Your task to perform on an android device: move an email to a new category in the gmail app Image 0: 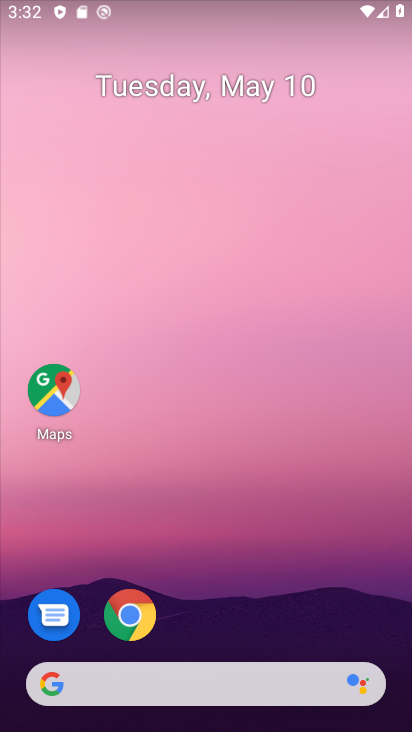
Step 0: drag from (291, 598) to (270, 120)
Your task to perform on an android device: move an email to a new category in the gmail app Image 1: 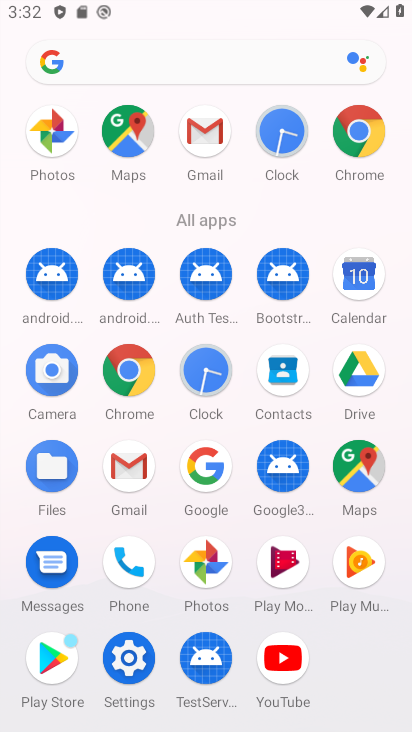
Step 1: click (208, 136)
Your task to perform on an android device: move an email to a new category in the gmail app Image 2: 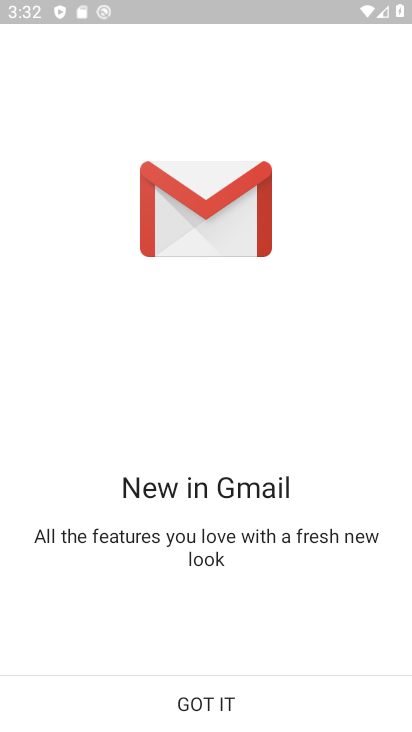
Step 2: click (231, 707)
Your task to perform on an android device: move an email to a new category in the gmail app Image 3: 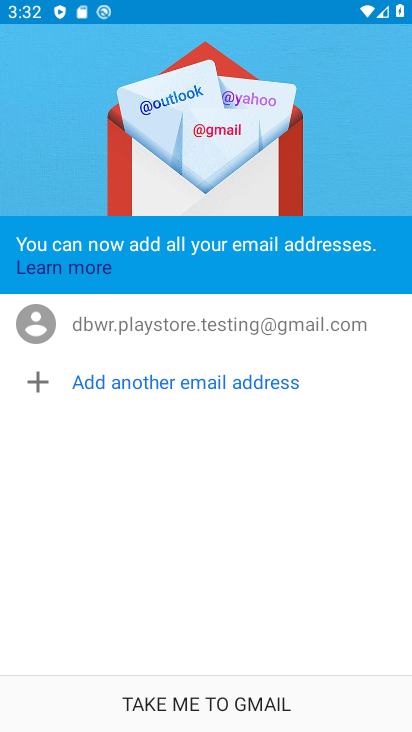
Step 3: click (236, 699)
Your task to perform on an android device: move an email to a new category in the gmail app Image 4: 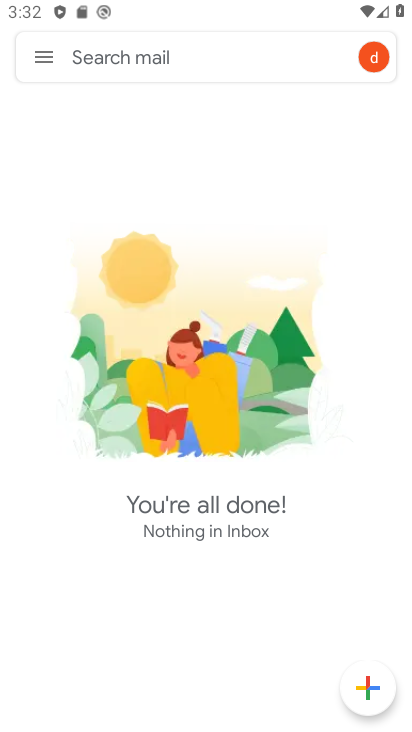
Step 4: task complete